Your task to perform on an android device: Open Yahoo.com Image 0: 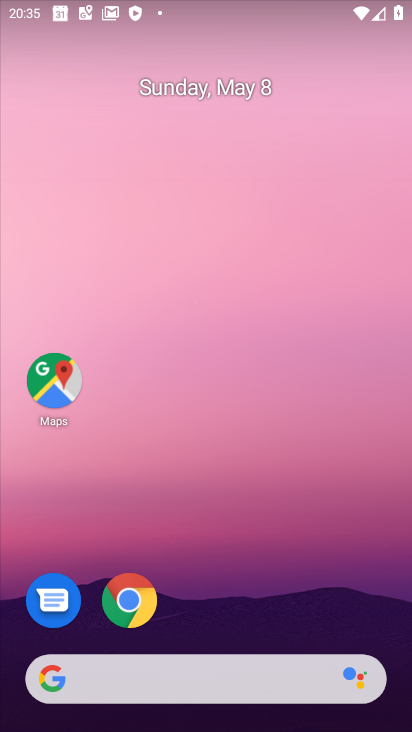
Step 0: drag from (251, 705) to (205, 109)
Your task to perform on an android device: Open Yahoo.com Image 1: 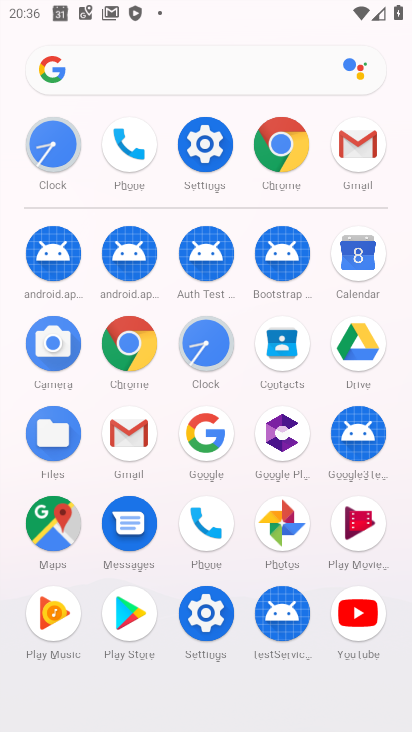
Step 1: click (269, 134)
Your task to perform on an android device: Open Yahoo.com Image 2: 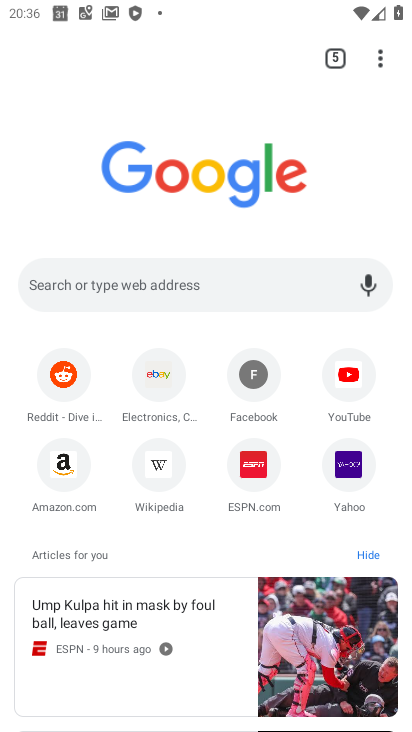
Step 2: click (337, 468)
Your task to perform on an android device: Open Yahoo.com Image 3: 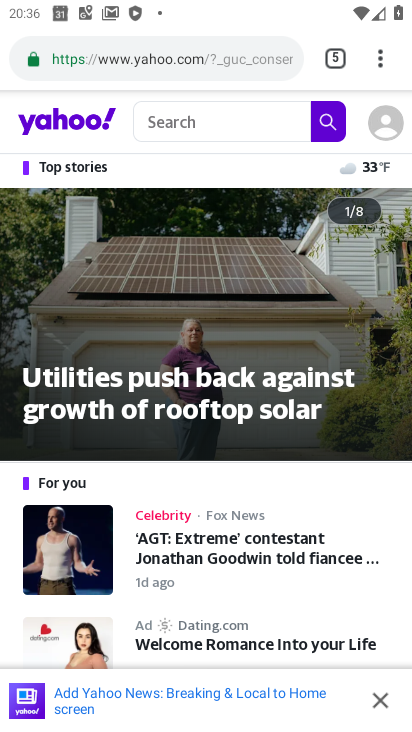
Step 3: task complete